Your task to perform on an android device: Open privacy settings Image 0: 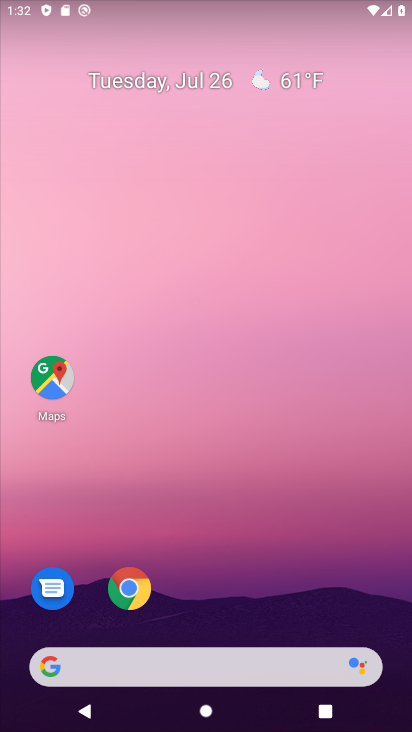
Step 0: drag from (341, 619) to (366, 57)
Your task to perform on an android device: Open privacy settings Image 1: 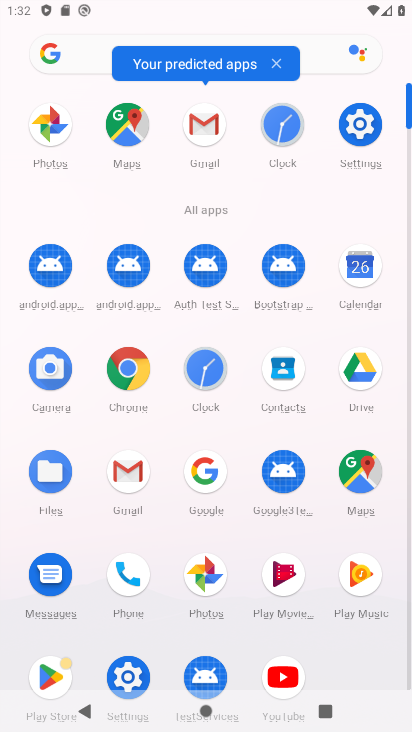
Step 1: click (370, 126)
Your task to perform on an android device: Open privacy settings Image 2: 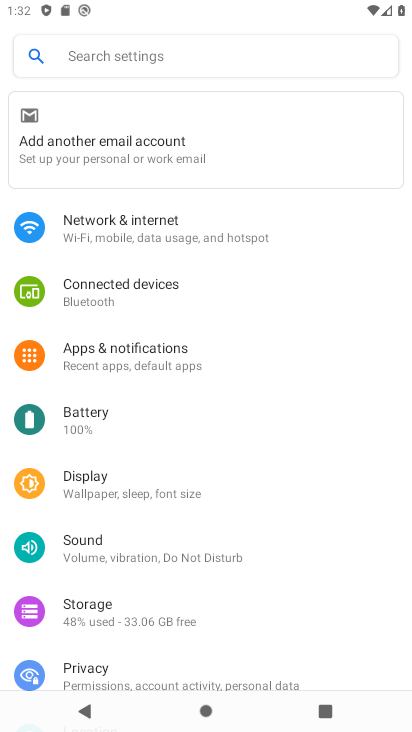
Step 2: drag from (107, 633) to (141, 361)
Your task to perform on an android device: Open privacy settings Image 3: 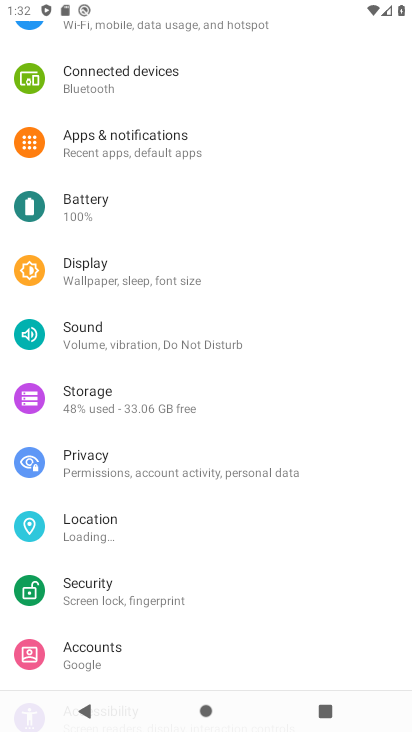
Step 3: click (116, 453)
Your task to perform on an android device: Open privacy settings Image 4: 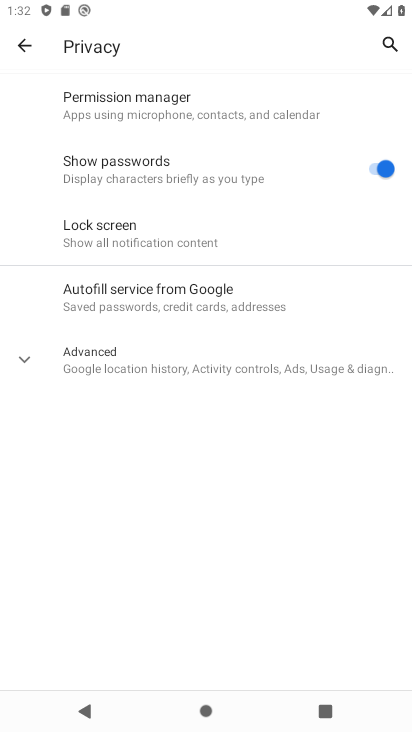
Step 4: task complete